Your task to perform on an android device: turn vacation reply on in the gmail app Image 0: 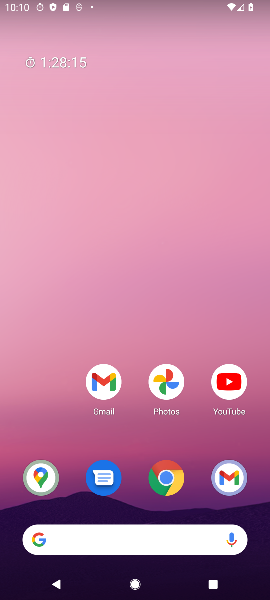
Step 0: drag from (141, 447) to (212, 56)
Your task to perform on an android device: turn vacation reply on in the gmail app Image 1: 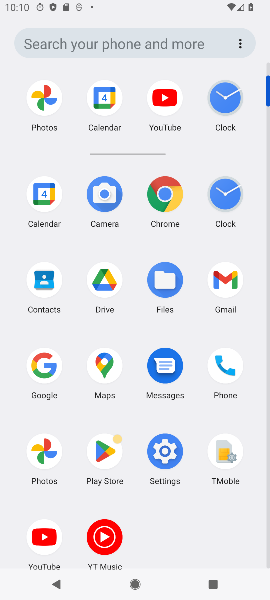
Step 1: click (223, 281)
Your task to perform on an android device: turn vacation reply on in the gmail app Image 2: 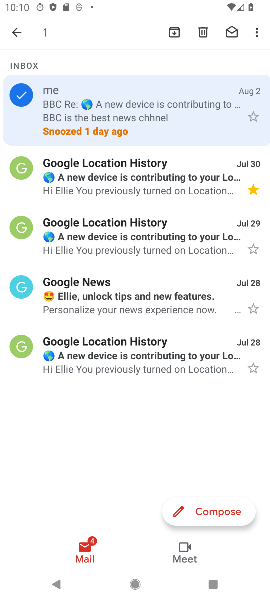
Step 2: click (21, 31)
Your task to perform on an android device: turn vacation reply on in the gmail app Image 3: 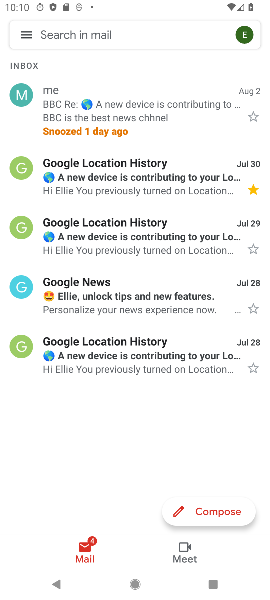
Step 3: click (21, 31)
Your task to perform on an android device: turn vacation reply on in the gmail app Image 4: 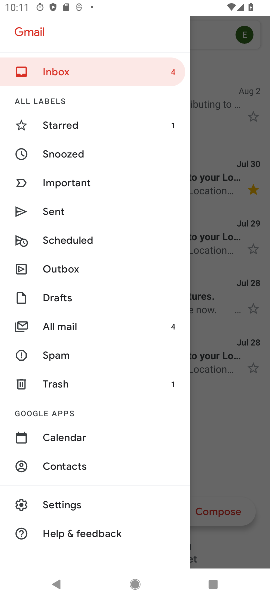
Step 4: click (70, 505)
Your task to perform on an android device: turn vacation reply on in the gmail app Image 5: 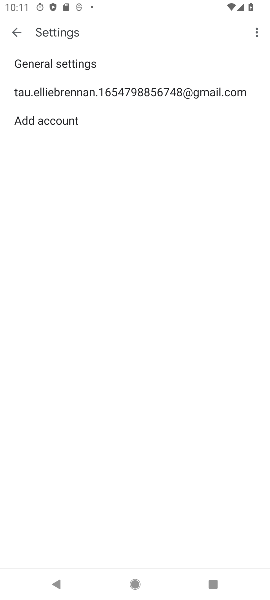
Step 5: click (124, 86)
Your task to perform on an android device: turn vacation reply on in the gmail app Image 6: 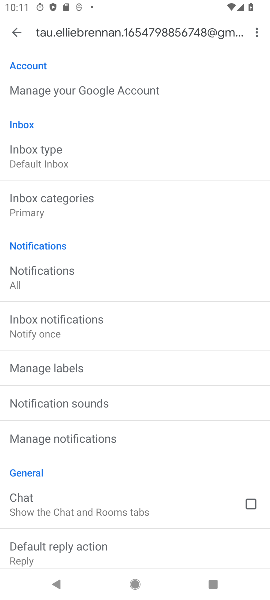
Step 6: drag from (46, 535) to (114, 211)
Your task to perform on an android device: turn vacation reply on in the gmail app Image 7: 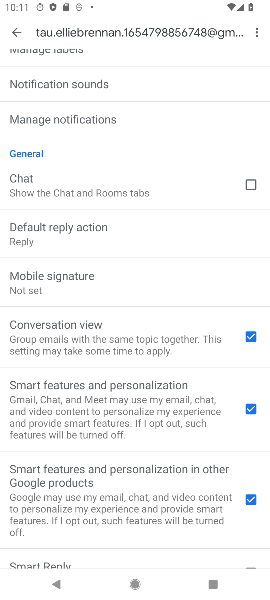
Step 7: drag from (82, 513) to (154, 162)
Your task to perform on an android device: turn vacation reply on in the gmail app Image 8: 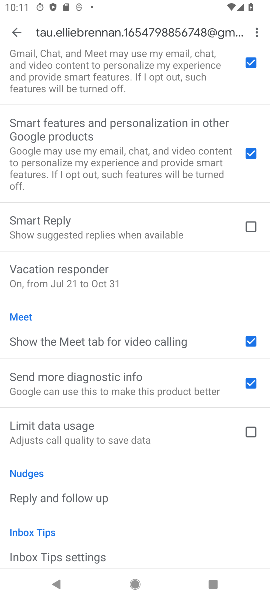
Step 8: click (52, 273)
Your task to perform on an android device: turn vacation reply on in the gmail app Image 9: 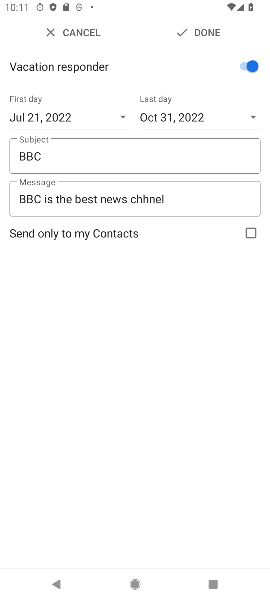
Step 9: click (198, 24)
Your task to perform on an android device: turn vacation reply on in the gmail app Image 10: 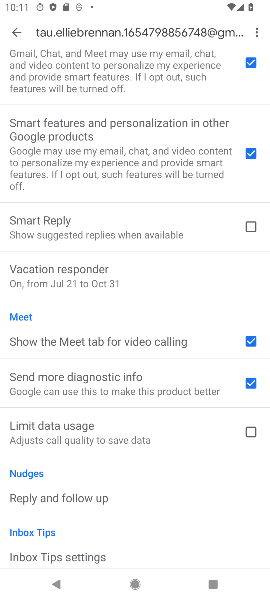
Step 10: task complete